Your task to perform on an android device: Go to Android settings Image 0: 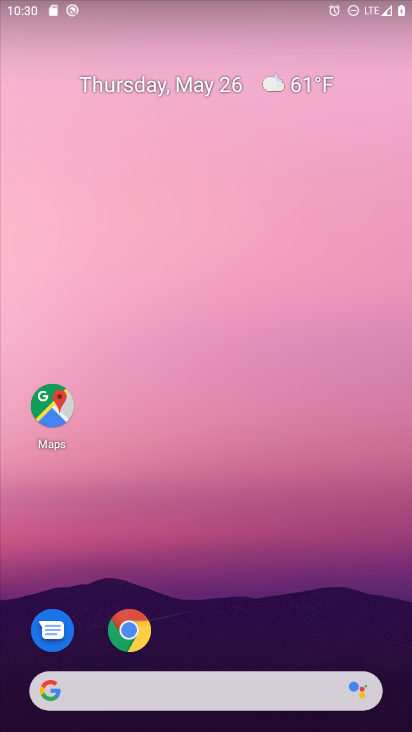
Step 0: drag from (183, 663) to (135, 71)
Your task to perform on an android device: Go to Android settings Image 1: 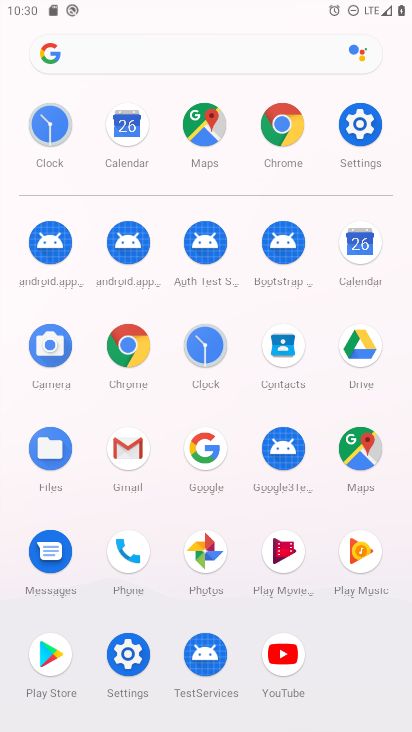
Step 1: click (357, 122)
Your task to perform on an android device: Go to Android settings Image 2: 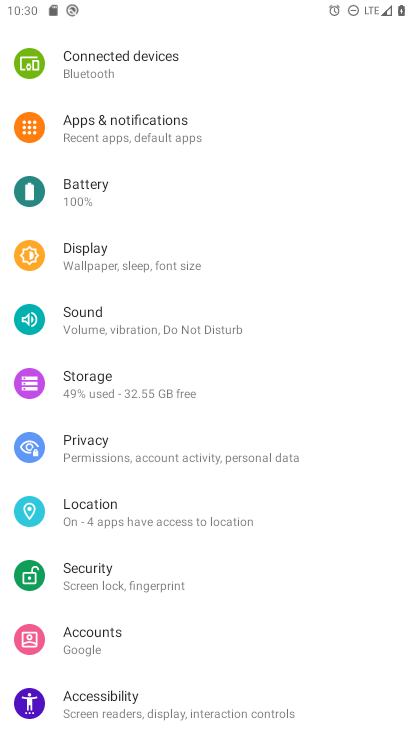
Step 2: task complete